Your task to perform on an android device: Search for vegetarian restaurants on Maps Image 0: 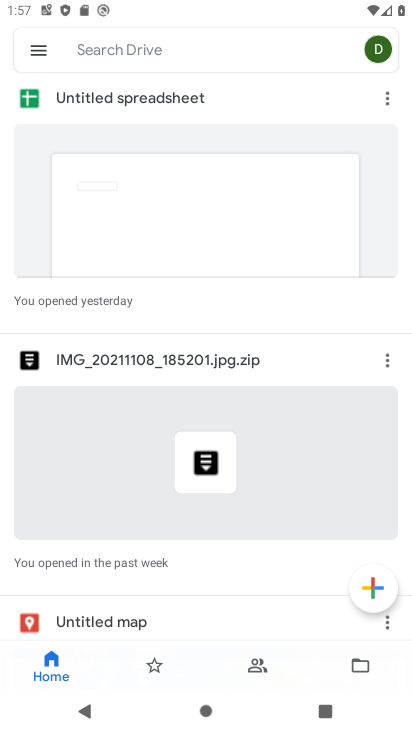
Step 0: press home button
Your task to perform on an android device: Search for vegetarian restaurants on Maps Image 1: 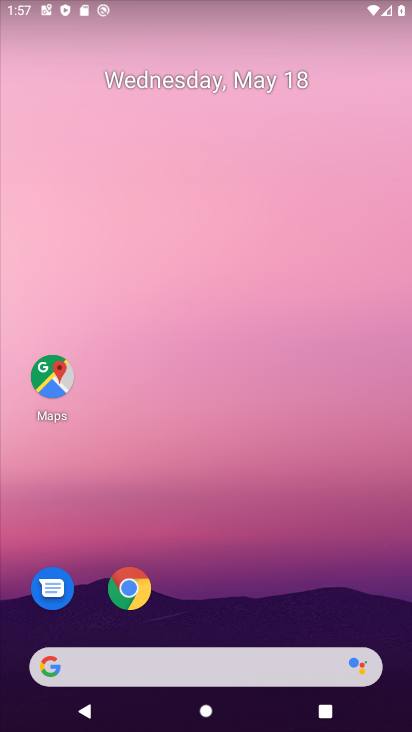
Step 1: drag from (338, 600) to (320, 62)
Your task to perform on an android device: Search for vegetarian restaurants on Maps Image 2: 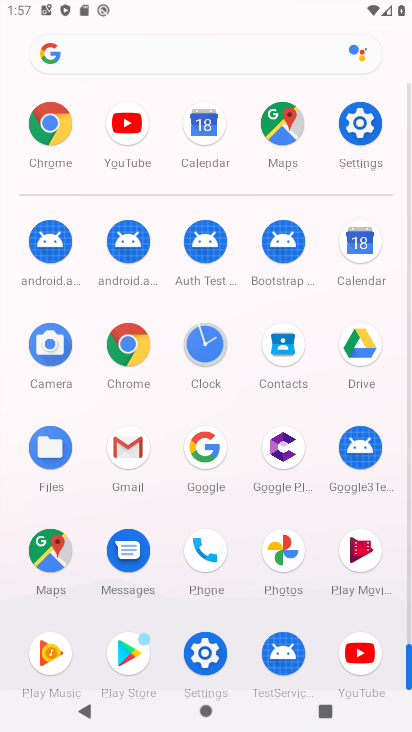
Step 2: click (53, 561)
Your task to perform on an android device: Search for vegetarian restaurants on Maps Image 3: 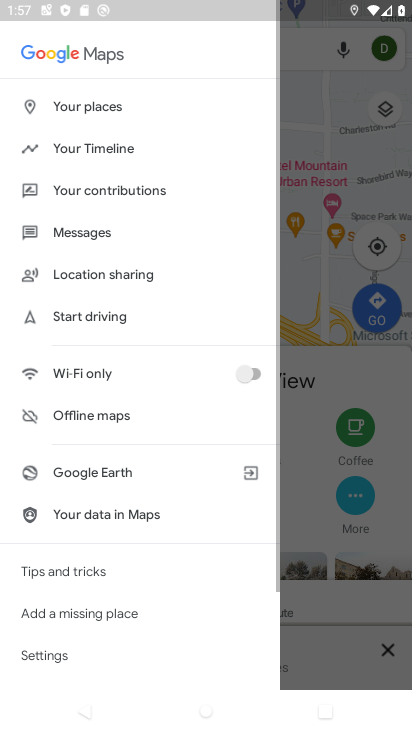
Step 3: press back button
Your task to perform on an android device: Search for vegetarian restaurants on Maps Image 4: 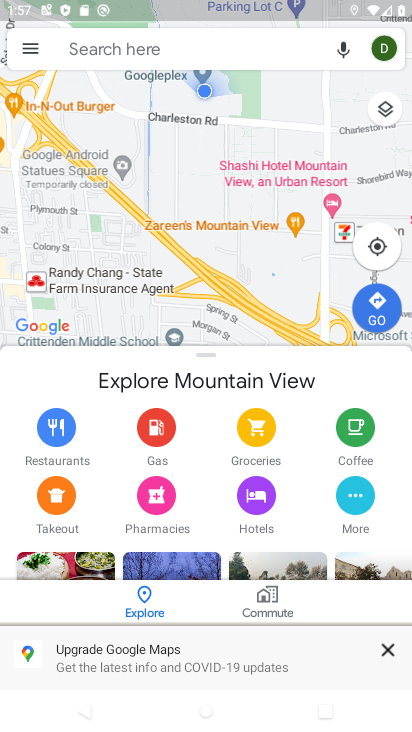
Step 4: click (214, 53)
Your task to perform on an android device: Search for vegetarian restaurants on Maps Image 5: 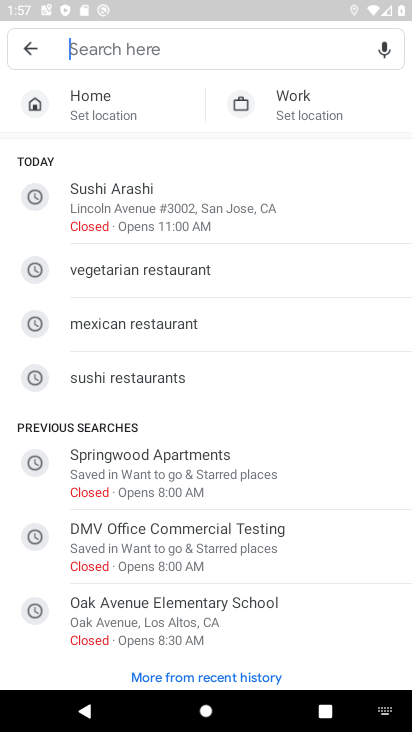
Step 5: type "vegetrain restaurants"
Your task to perform on an android device: Search for vegetarian restaurants on Maps Image 6: 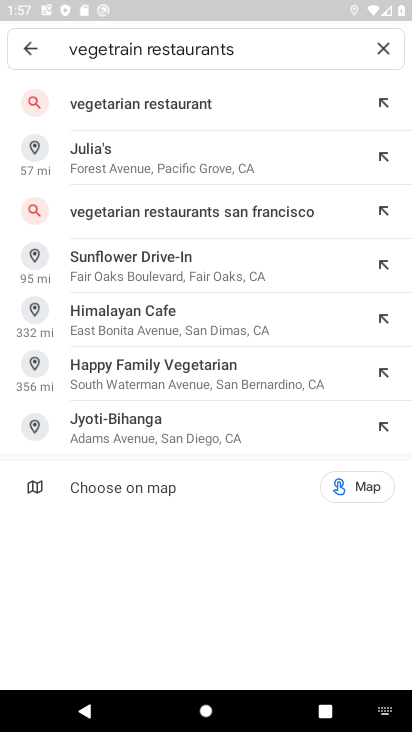
Step 6: click (178, 112)
Your task to perform on an android device: Search for vegetarian restaurants on Maps Image 7: 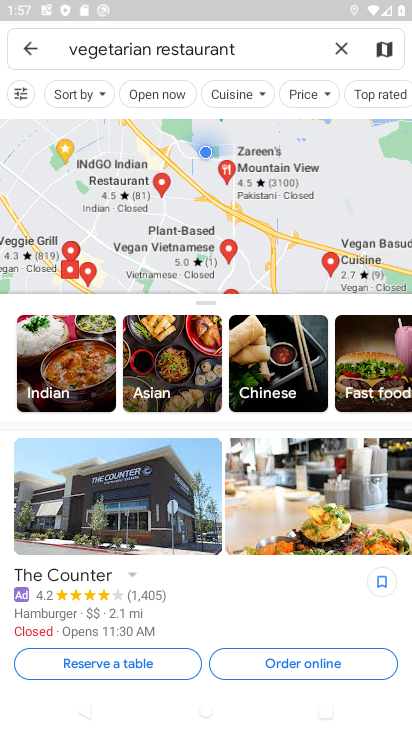
Step 7: task complete